Your task to perform on an android device: toggle notifications settings in the gmail app Image 0: 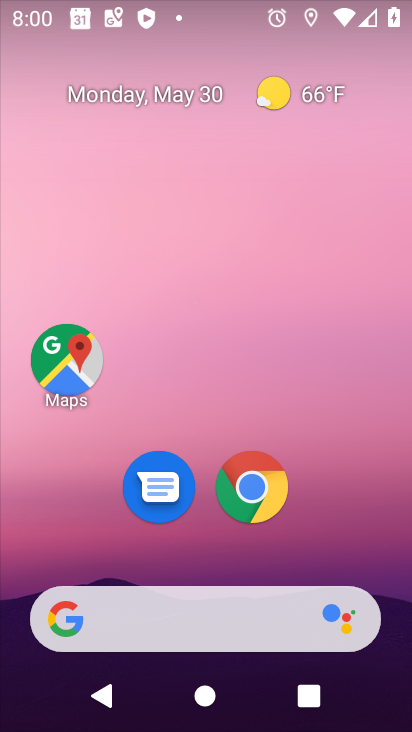
Step 0: press home button
Your task to perform on an android device: toggle notifications settings in the gmail app Image 1: 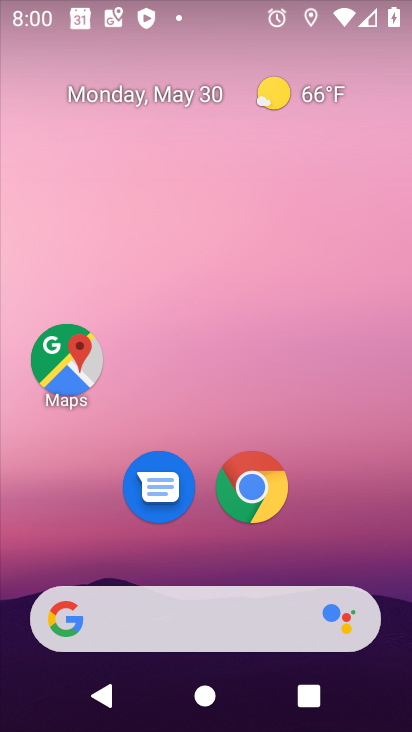
Step 1: drag from (307, 525) to (318, 7)
Your task to perform on an android device: toggle notifications settings in the gmail app Image 2: 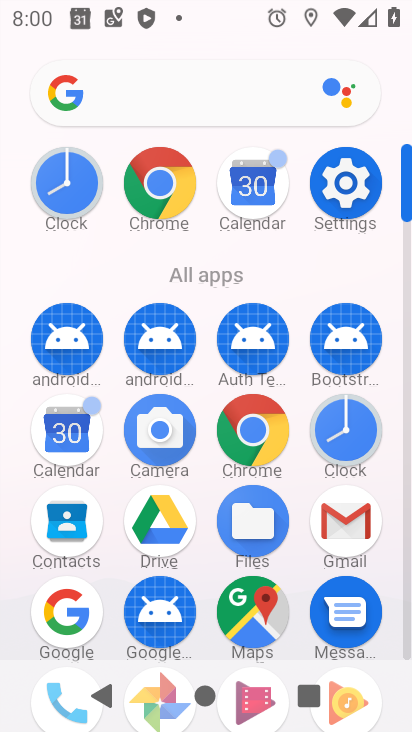
Step 2: click (343, 513)
Your task to perform on an android device: toggle notifications settings in the gmail app Image 3: 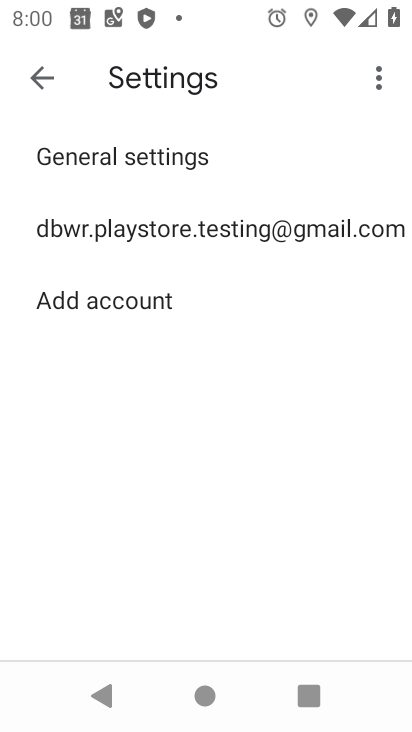
Step 3: click (117, 157)
Your task to perform on an android device: toggle notifications settings in the gmail app Image 4: 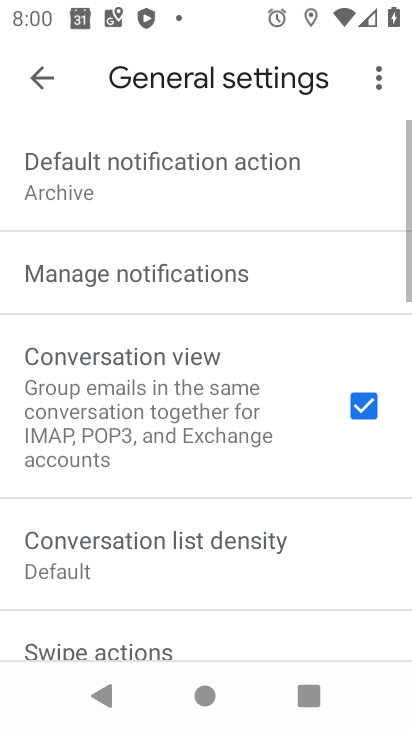
Step 4: click (136, 278)
Your task to perform on an android device: toggle notifications settings in the gmail app Image 5: 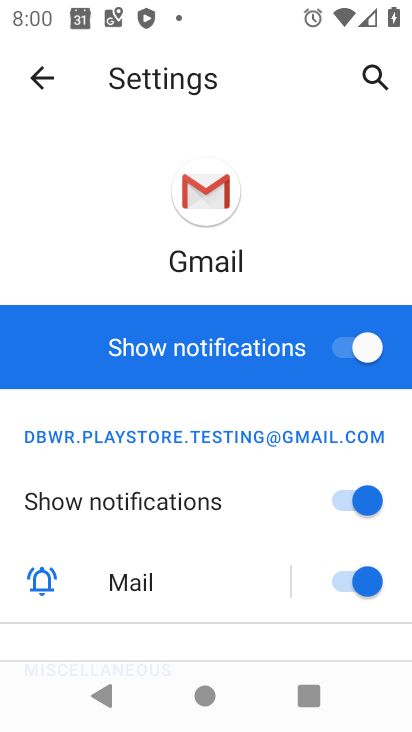
Step 5: click (363, 344)
Your task to perform on an android device: toggle notifications settings in the gmail app Image 6: 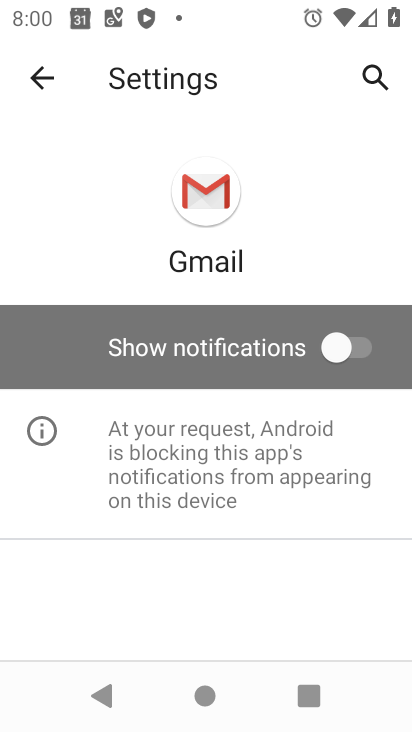
Step 6: task complete